Your task to perform on an android device: search for starred emails in the gmail app Image 0: 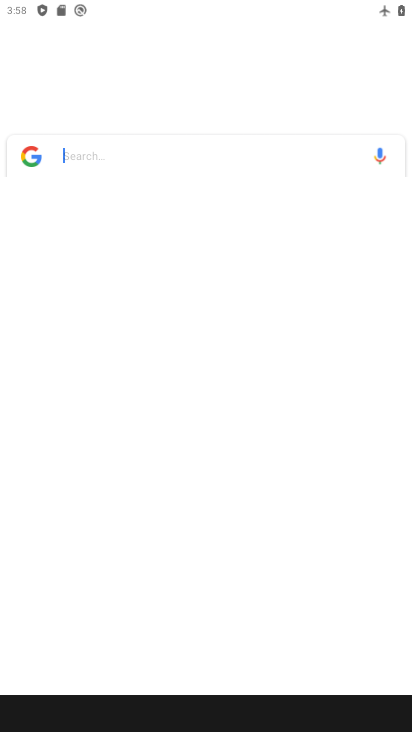
Step 0: drag from (256, 579) to (276, 82)
Your task to perform on an android device: search for starred emails in the gmail app Image 1: 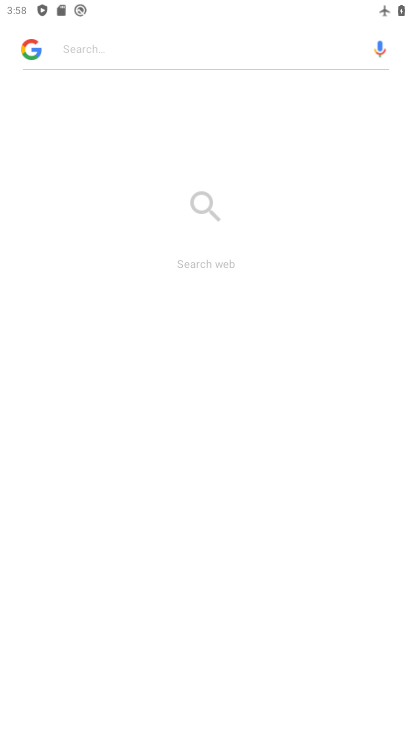
Step 1: press home button
Your task to perform on an android device: search for starred emails in the gmail app Image 2: 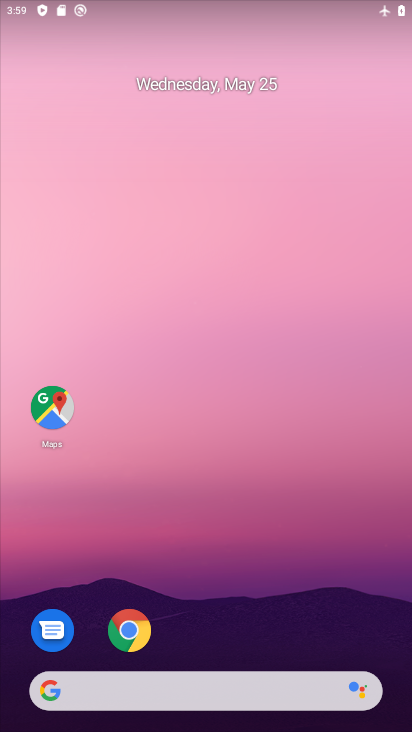
Step 2: drag from (223, 623) to (300, 5)
Your task to perform on an android device: search for starred emails in the gmail app Image 3: 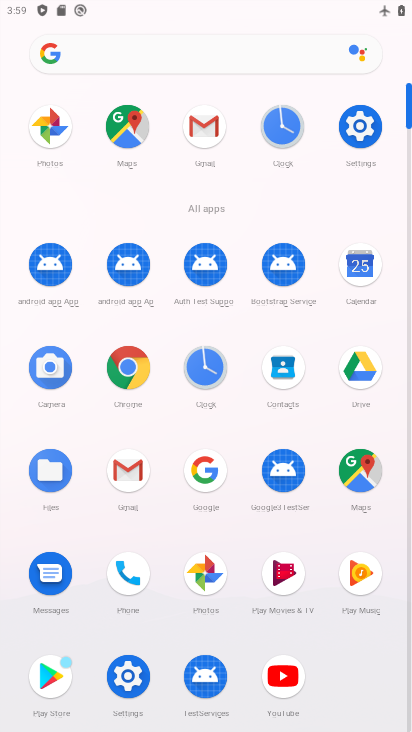
Step 3: click (199, 132)
Your task to perform on an android device: search for starred emails in the gmail app Image 4: 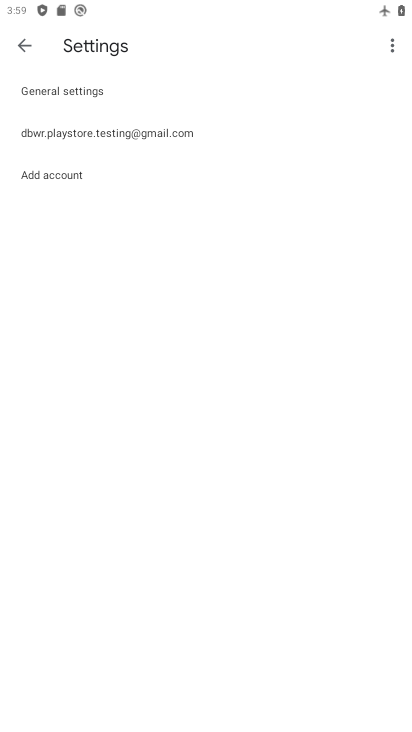
Step 4: click (26, 39)
Your task to perform on an android device: search for starred emails in the gmail app Image 5: 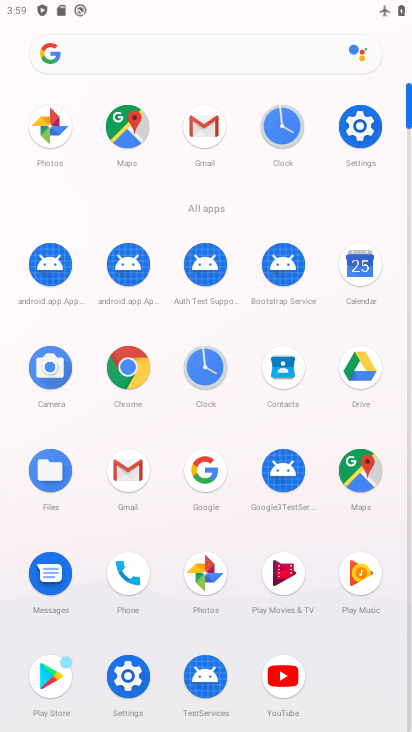
Step 5: click (121, 466)
Your task to perform on an android device: search for starred emails in the gmail app Image 6: 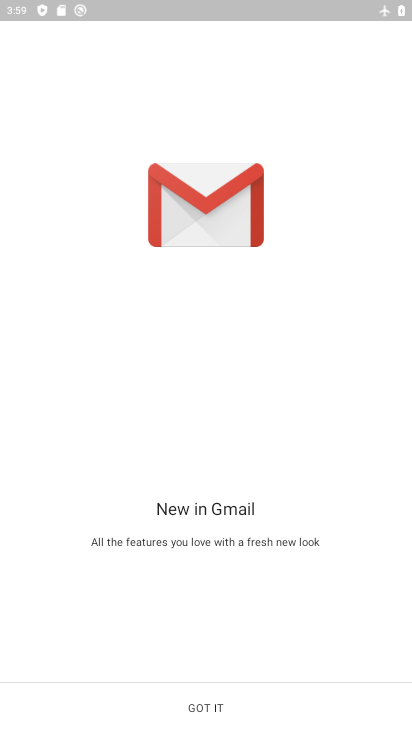
Step 6: click (194, 706)
Your task to perform on an android device: search for starred emails in the gmail app Image 7: 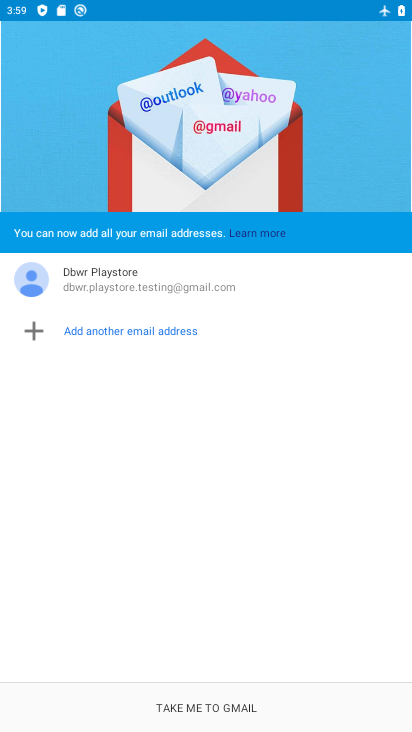
Step 7: click (186, 697)
Your task to perform on an android device: search for starred emails in the gmail app Image 8: 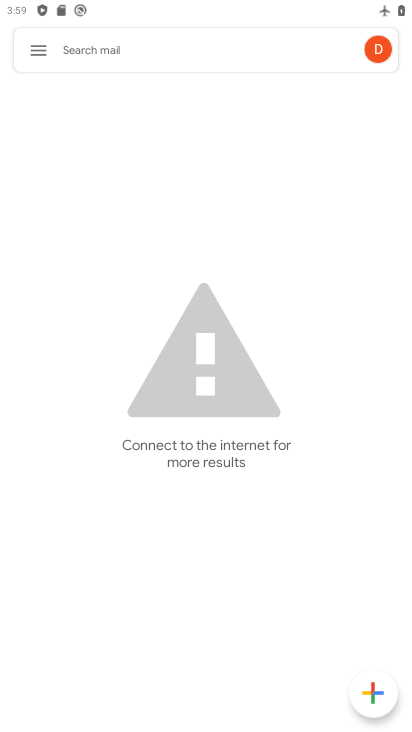
Step 8: click (33, 48)
Your task to perform on an android device: search for starred emails in the gmail app Image 9: 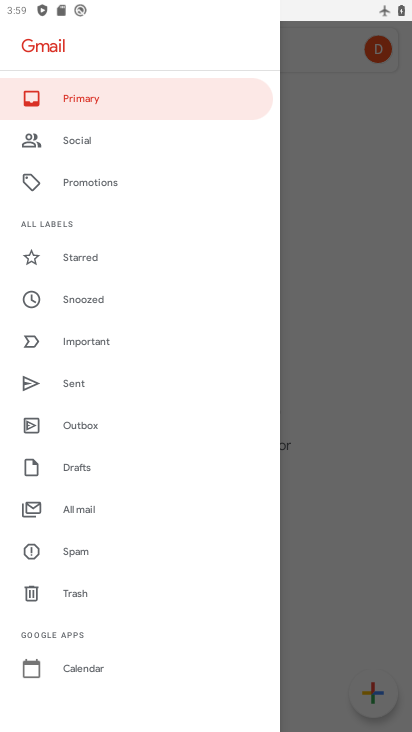
Step 9: click (89, 261)
Your task to perform on an android device: search for starred emails in the gmail app Image 10: 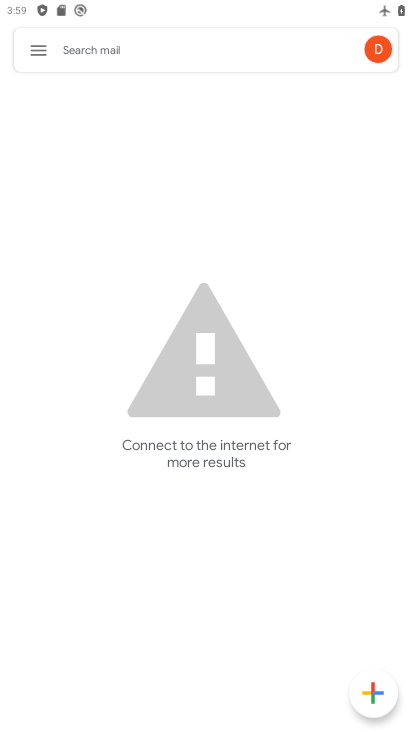
Step 10: task complete